Your task to perform on an android device: star an email in the gmail app Image 0: 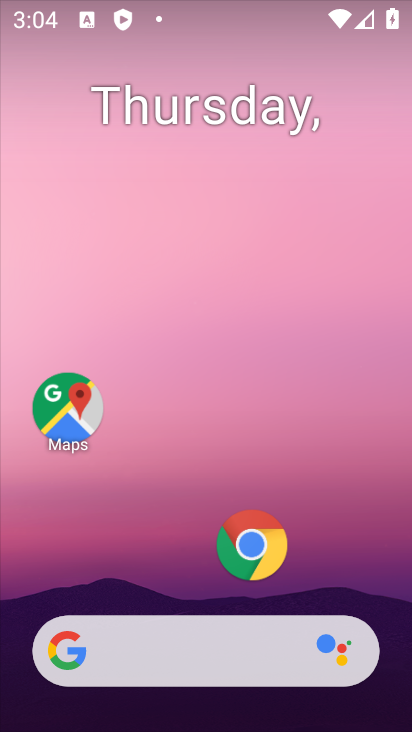
Step 0: drag from (310, 647) to (282, 17)
Your task to perform on an android device: star an email in the gmail app Image 1: 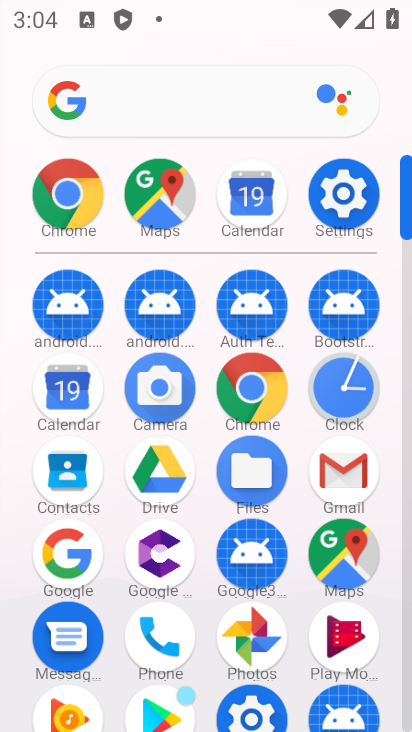
Step 1: click (350, 472)
Your task to perform on an android device: star an email in the gmail app Image 2: 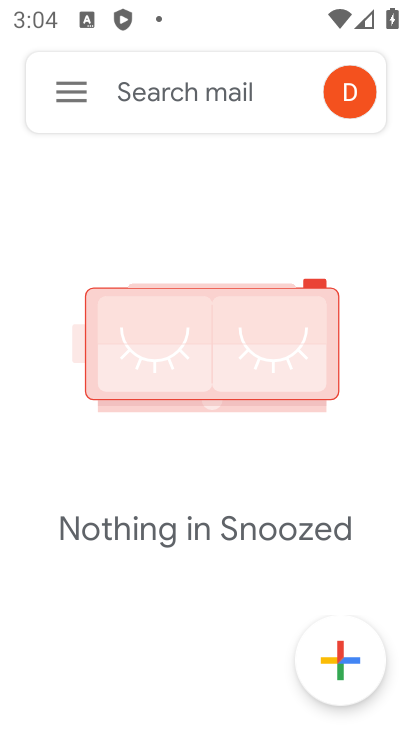
Step 2: click (73, 93)
Your task to perform on an android device: star an email in the gmail app Image 3: 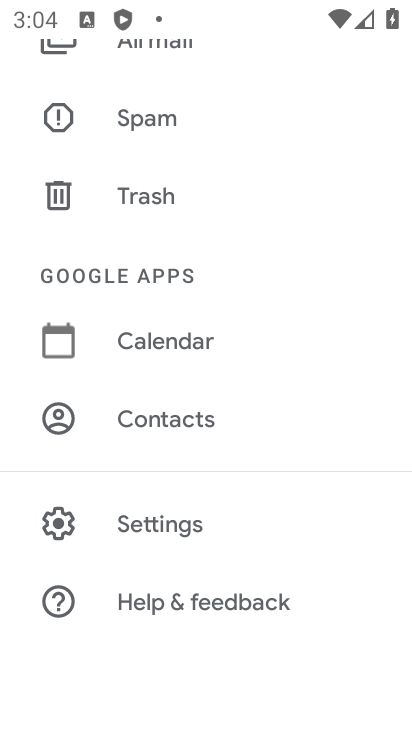
Step 3: drag from (224, 127) to (212, 631)
Your task to perform on an android device: star an email in the gmail app Image 4: 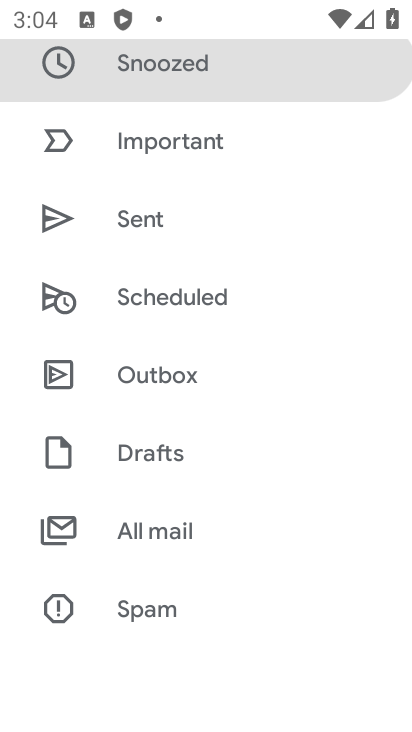
Step 4: drag from (232, 222) to (267, 597)
Your task to perform on an android device: star an email in the gmail app Image 5: 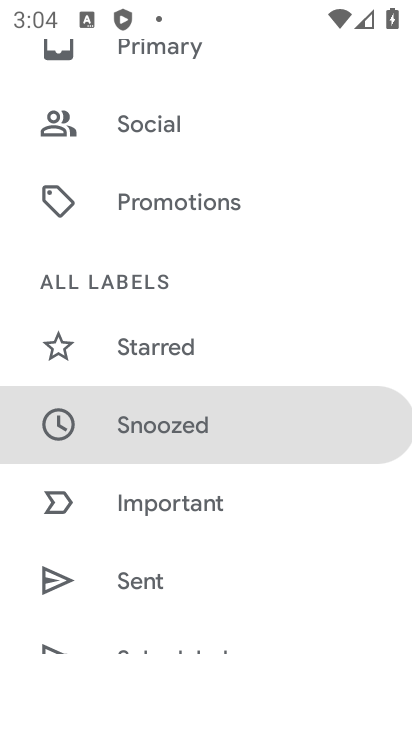
Step 5: click (175, 343)
Your task to perform on an android device: star an email in the gmail app Image 6: 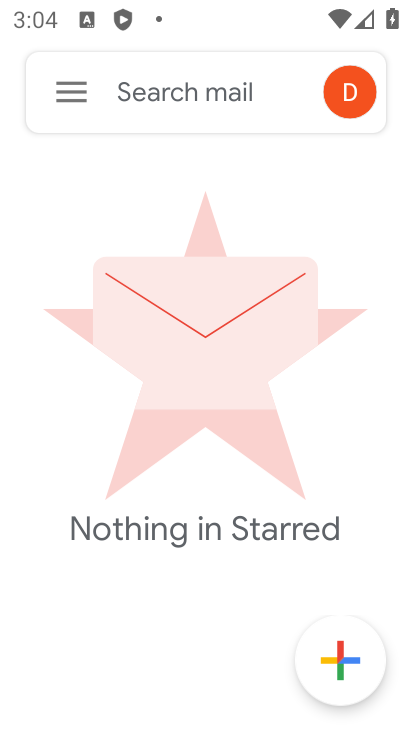
Step 6: task complete